Your task to perform on an android device: turn off improve location accuracy Image 0: 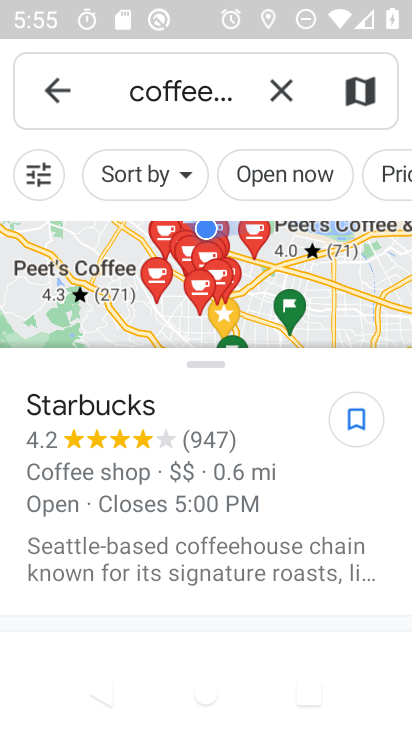
Step 0: press home button
Your task to perform on an android device: turn off improve location accuracy Image 1: 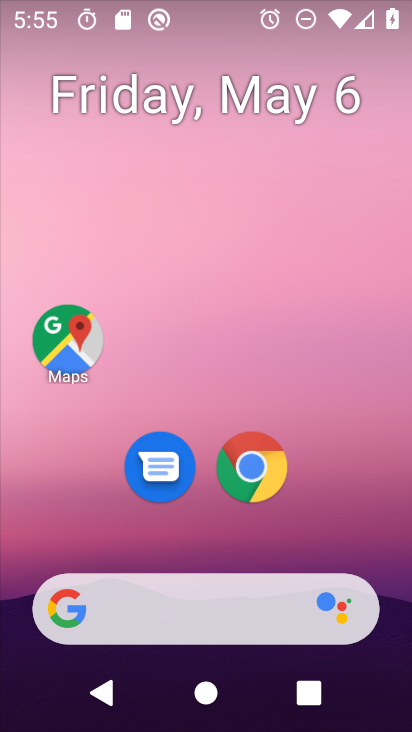
Step 1: drag from (315, 504) to (247, 221)
Your task to perform on an android device: turn off improve location accuracy Image 2: 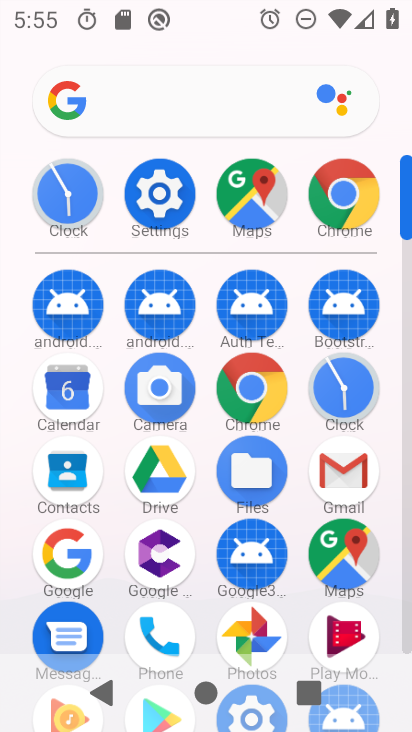
Step 2: drag from (185, 529) to (225, 234)
Your task to perform on an android device: turn off improve location accuracy Image 3: 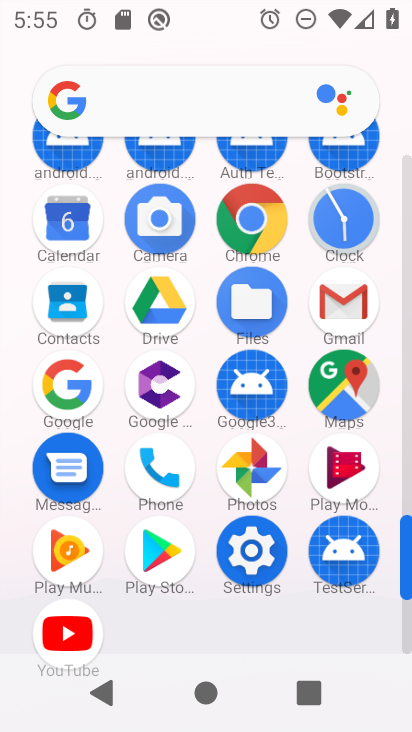
Step 3: drag from (190, 261) to (184, 530)
Your task to perform on an android device: turn off improve location accuracy Image 4: 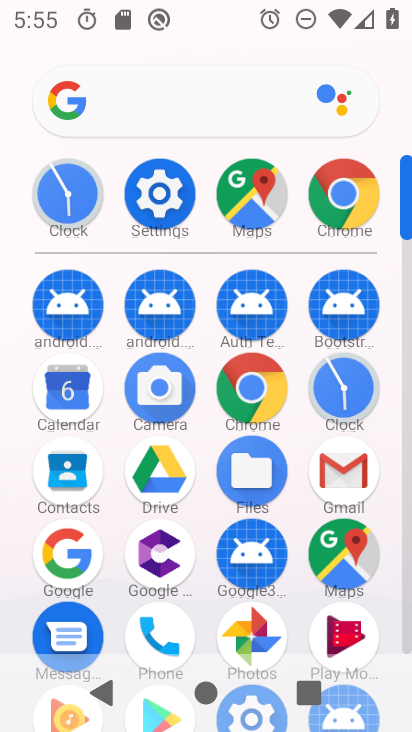
Step 4: click (47, 493)
Your task to perform on an android device: turn off improve location accuracy Image 5: 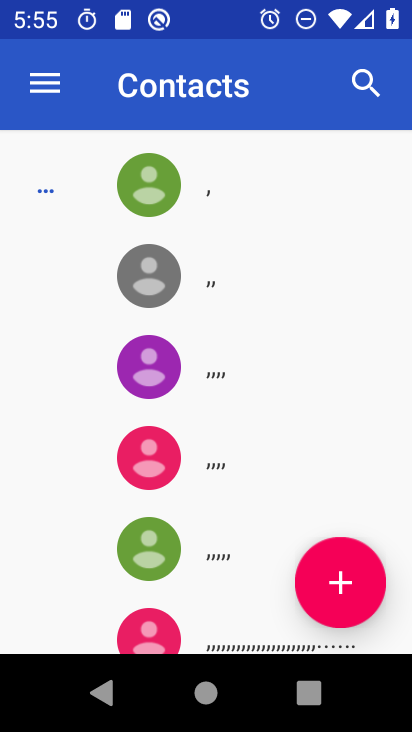
Step 5: click (336, 580)
Your task to perform on an android device: turn off improve location accuracy Image 6: 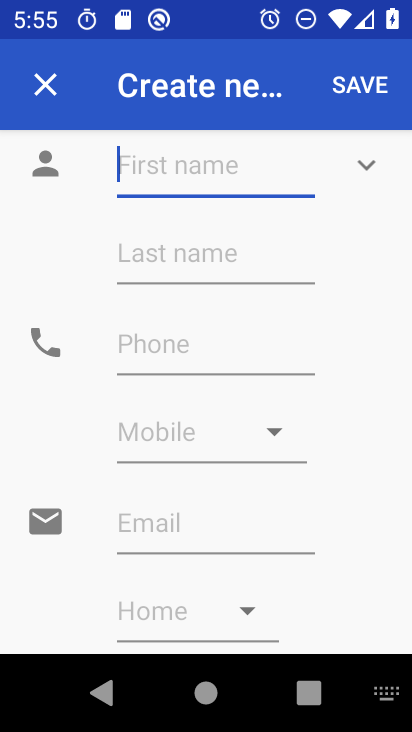
Step 6: type "Tavanya"
Your task to perform on an android device: turn off improve location accuracy Image 7: 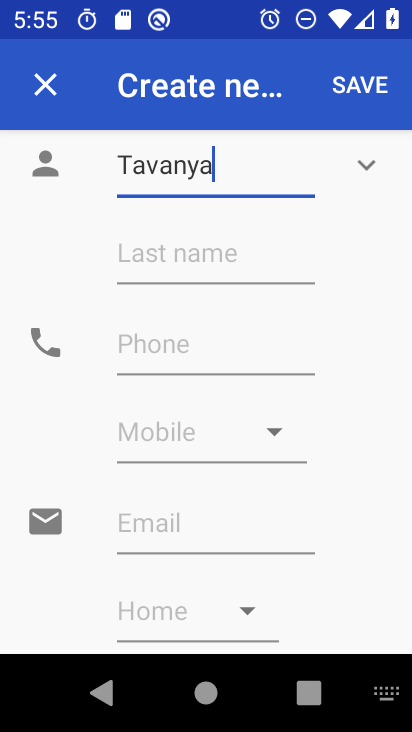
Step 7: click (224, 283)
Your task to perform on an android device: turn off improve location accuracy Image 8: 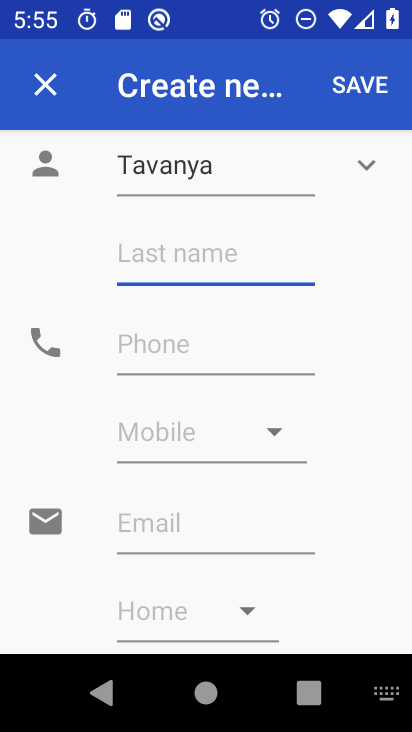
Step 8: click (218, 267)
Your task to perform on an android device: turn off improve location accuracy Image 9: 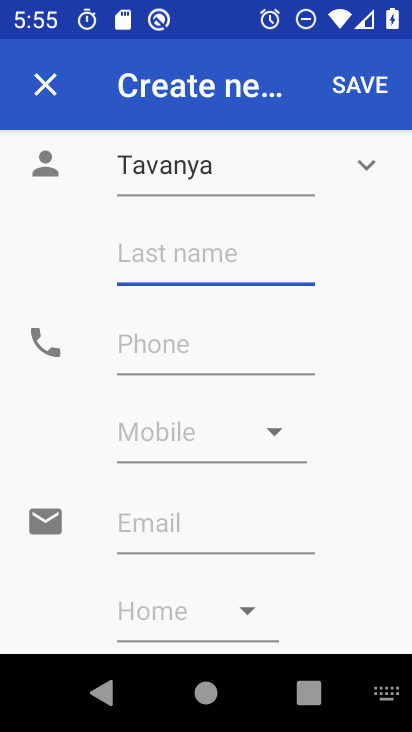
Step 9: type "Gandhi"
Your task to perform on an android device: turn off improve location accuracy Image 10: 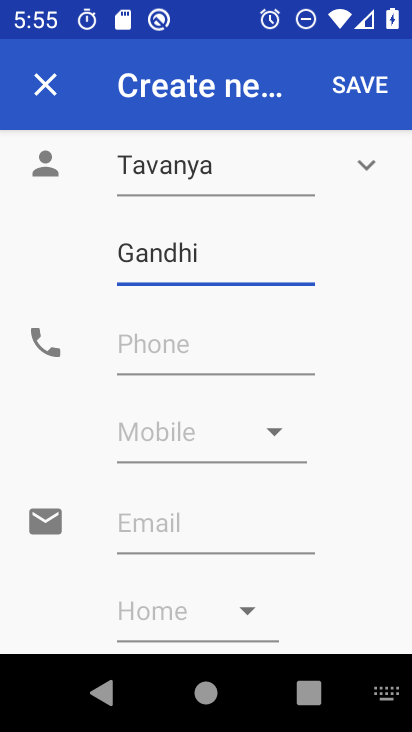
Step 10: click (137, 335)
Your task to perform on an android device: turn off improve location accuracy Image 11: 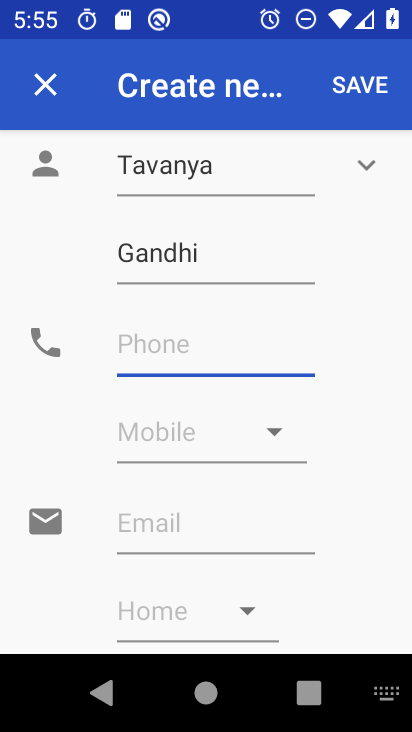
Step 11: type "7878878778"
Your task to perform on an android device: turn off improve location accuracy Image 12: 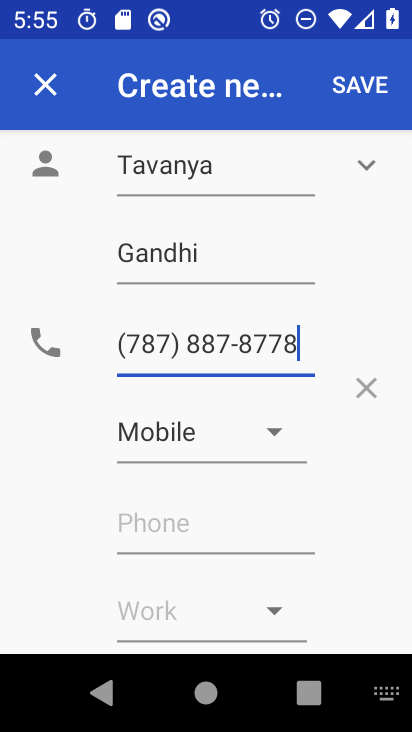
Step 12: click (352, 88)
Your task to perform on an android device: turn off improve location accuracy Image 13: 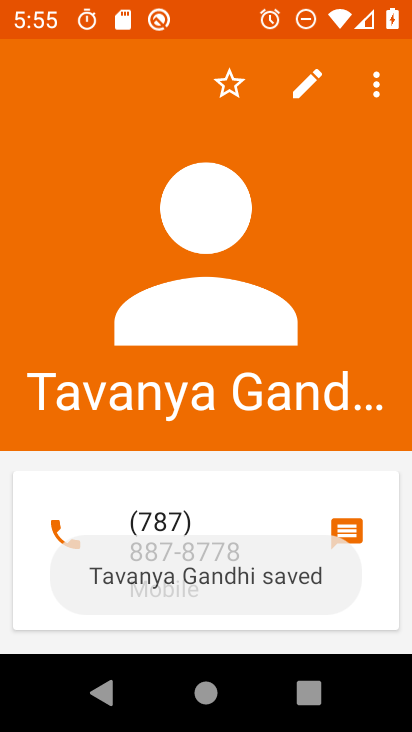
Step 13: task complete